Your task to perform on an android device: open app "VLC for Android" (install if not already installed) and enter user name: "Yves@outlook.com" and password: "internally" Image 0: 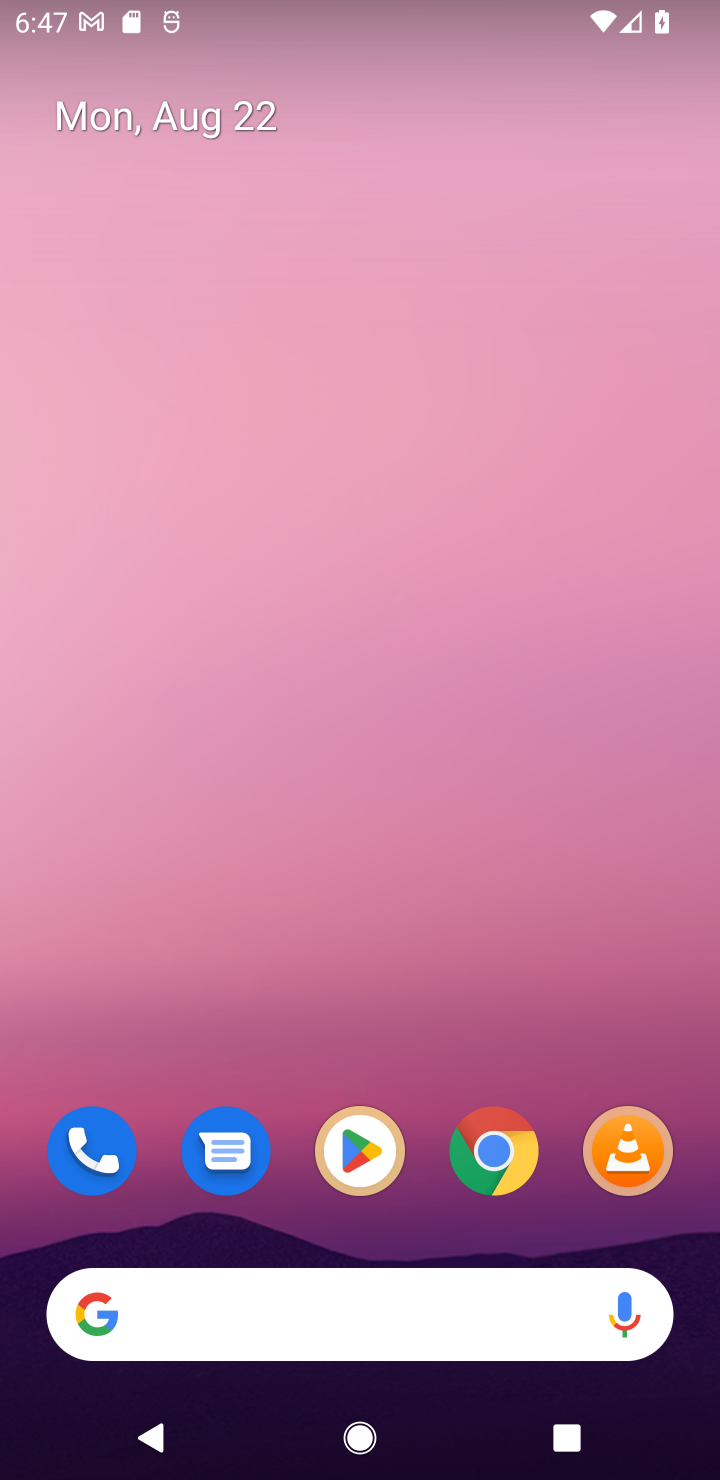
Step 0: press home button
Your task to perform on an android device: open app "VLC for Android" (install if not already installed) and enter user name: "Yves@outlook.com" and password: "internally" Image 1: 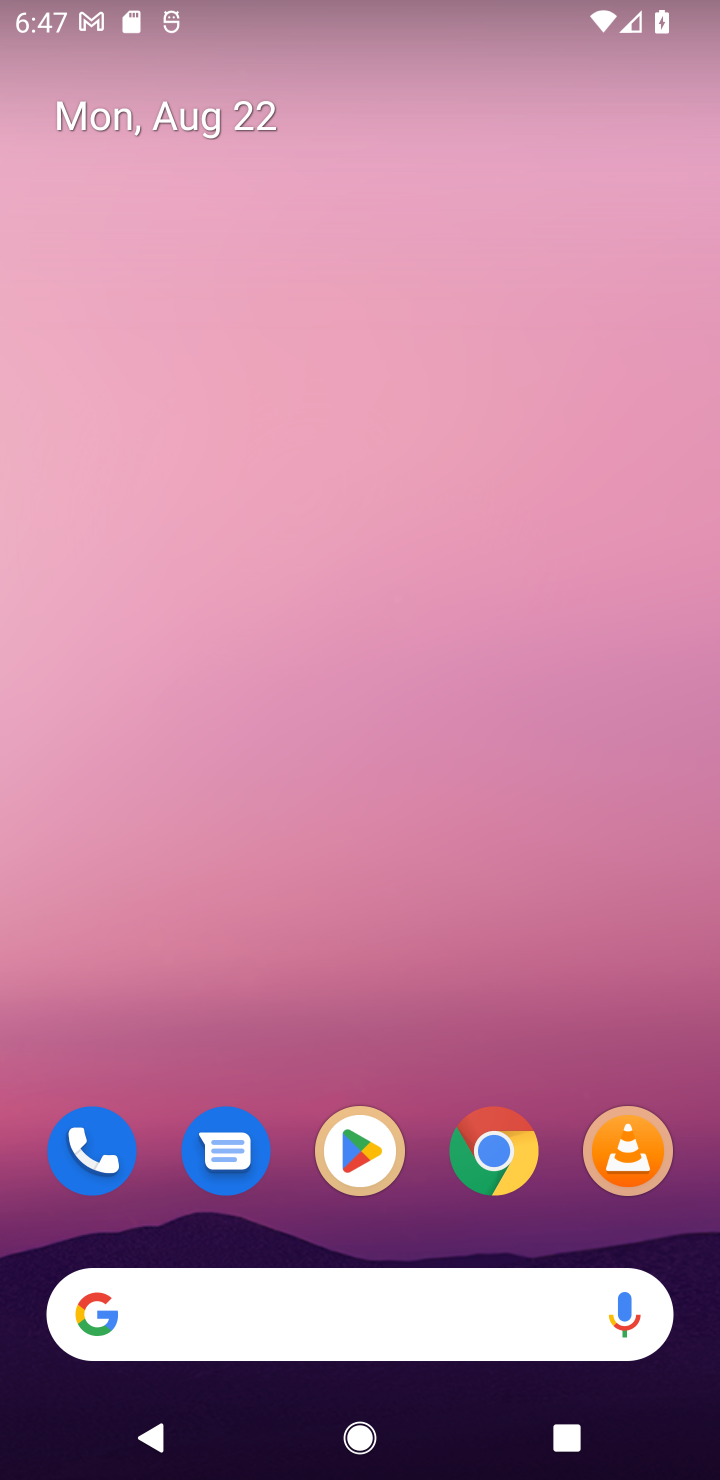
Step 1: click (333, 1153)
Your task to perform on an android device: open app "VLC for Android" (install if not already installed) and enter user name: "Yves@outlook.com" and password: "internally" Image 2: 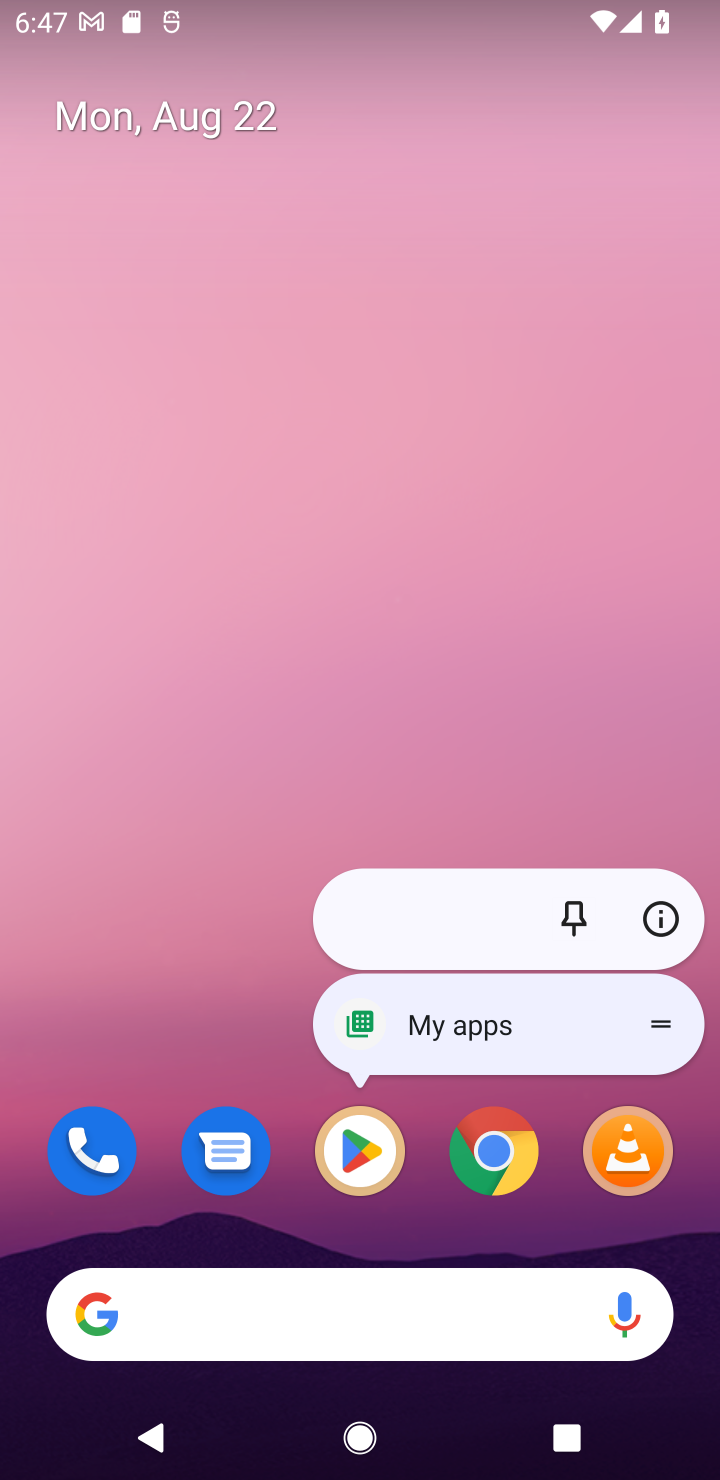
Step 2: click (358, 1154)
Your task to perform on an android device: open app "VLC for Android" (install if not already installed) and enter user name: "Yves@outlook.com" and password: "internally" Image 3: 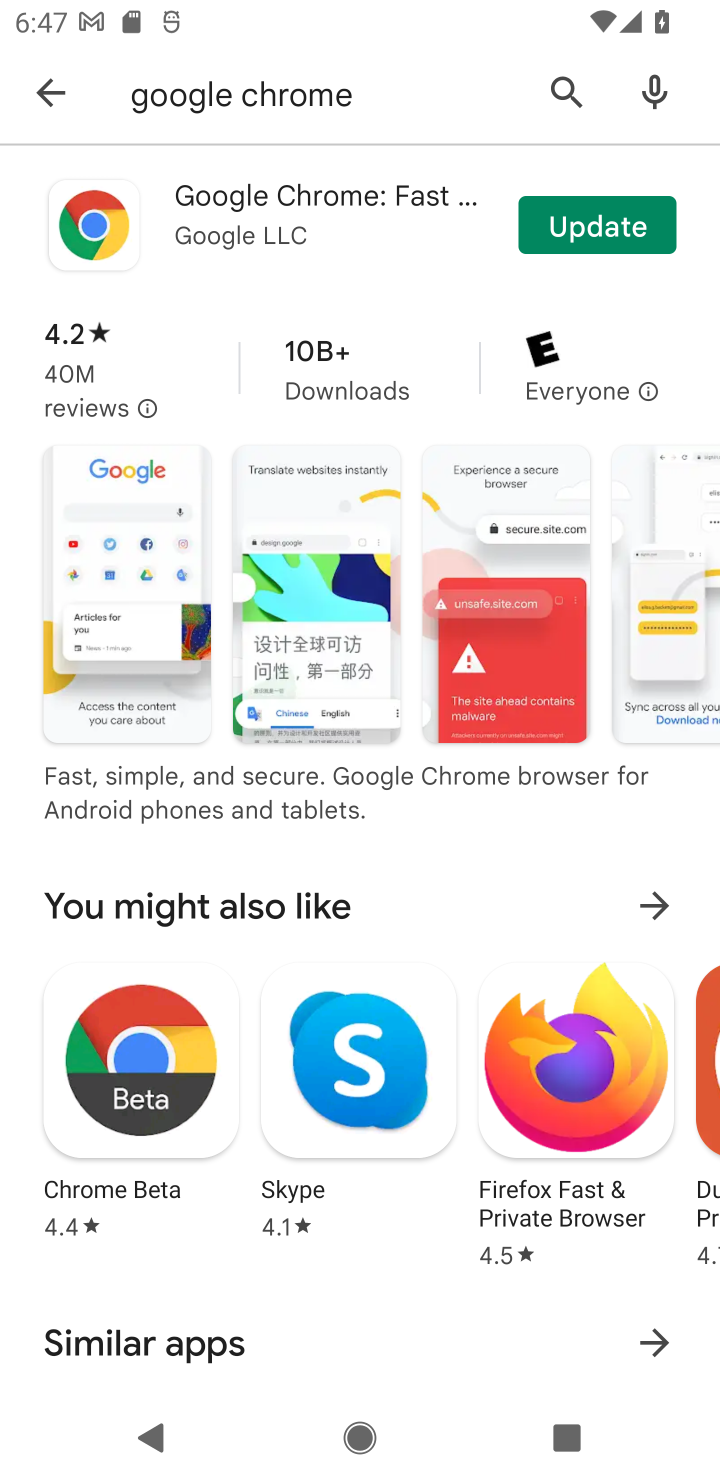
Step 3: click (567, 70)
Your task to perform on an android device: open app "VLC for Android" (install if not already installed) and enter user name: "Yves@outlook.com" and password: "internally" Image 4: 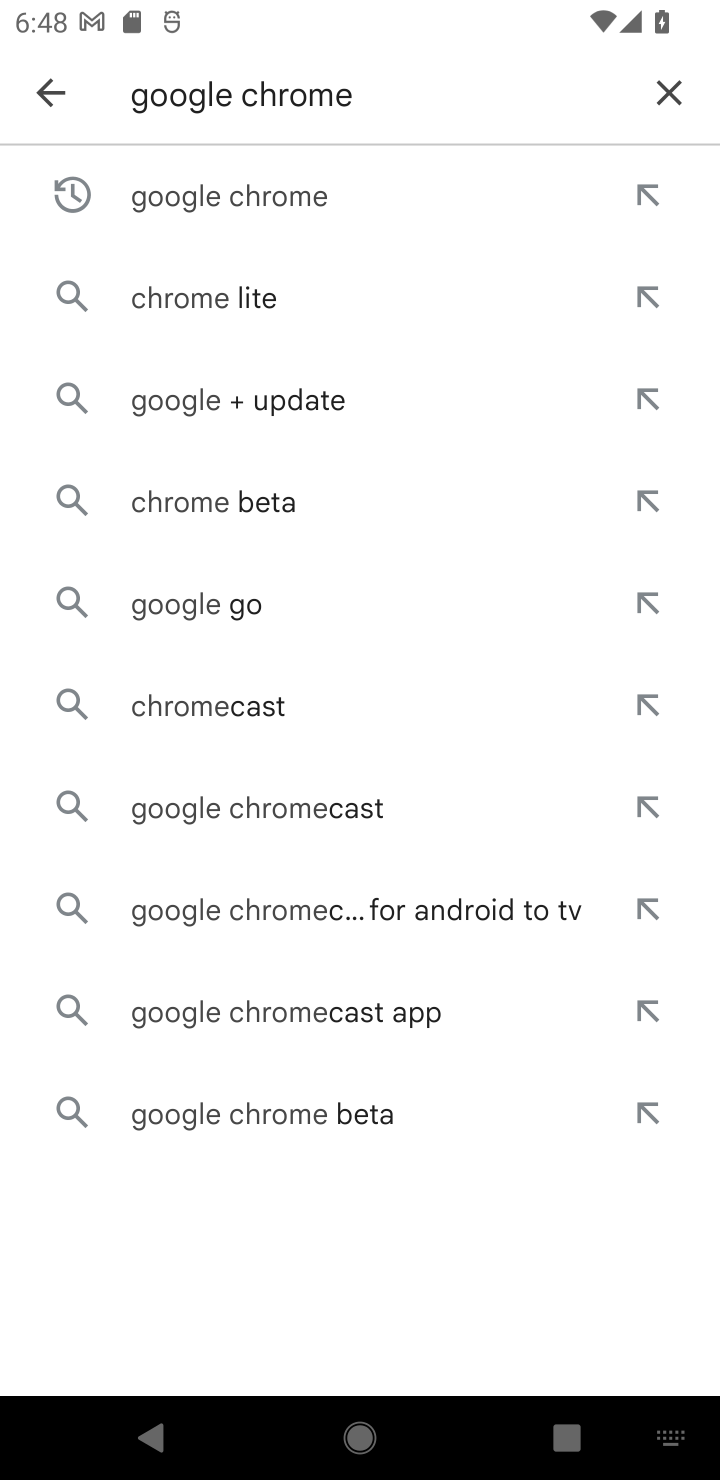
Step 4: click (654, 70)
Your task to perform on an android device: open app "VLC for Android" (install if not already installed) and enter user name: "Yves@outlook.com" and password: "internally" Image 5: 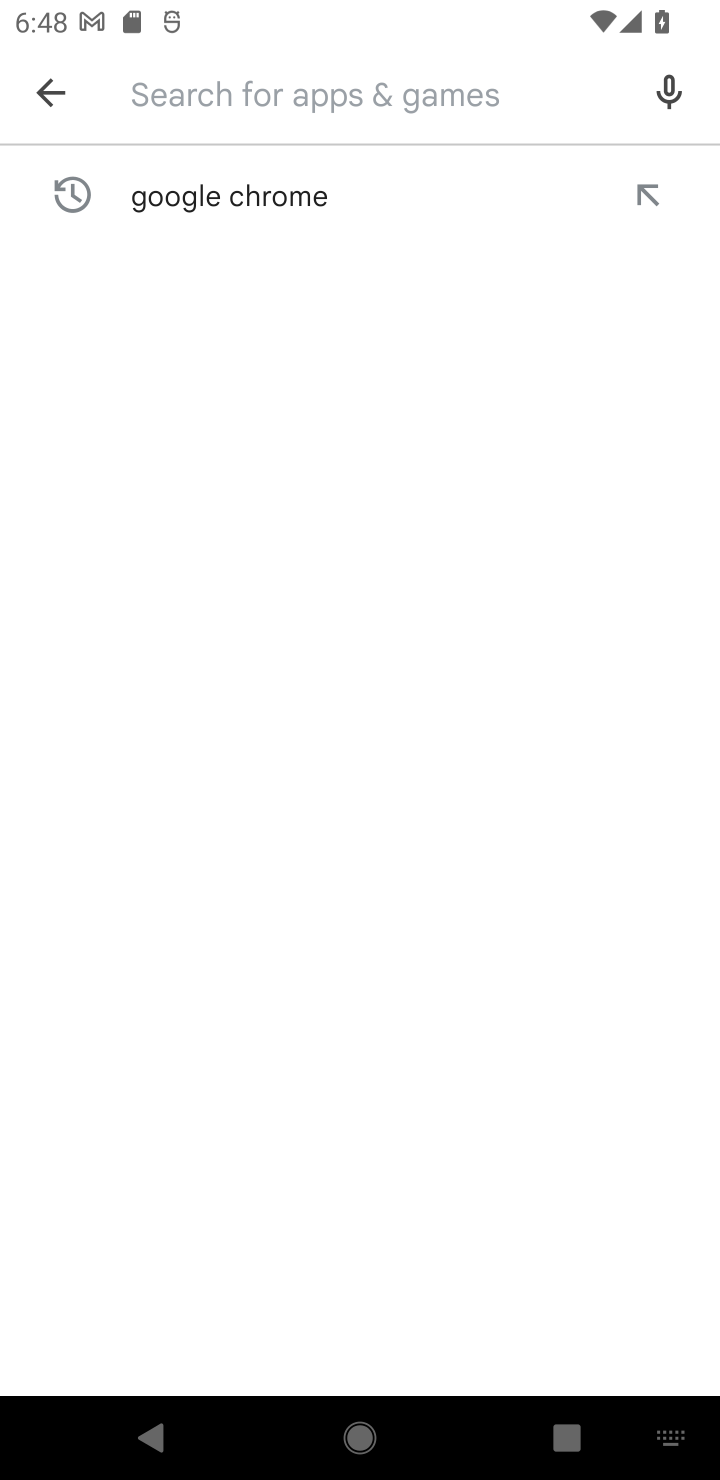
Step 5: type "VLC for Android"
Your task to perform on an android device: open app "VLC for Android" (install if not already installed) and enter user name: "Yves@outlook.com" and password: "internally" Image 6: 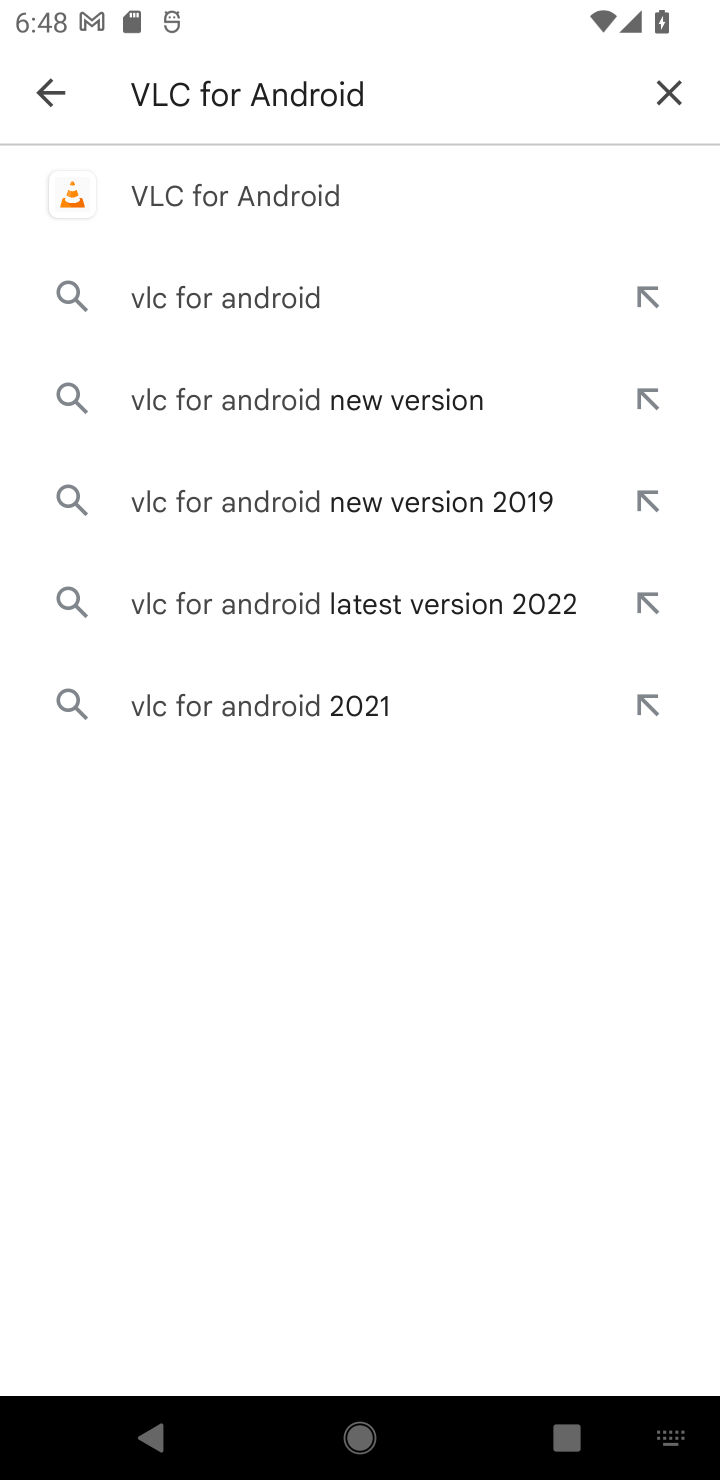
Step 6: click (249, 185)
Your task to perform on an android device: open app "VLC for Android" (install if not already installed) and enter user name: "Yves@outlook.com" and password: "internally" Image 7: 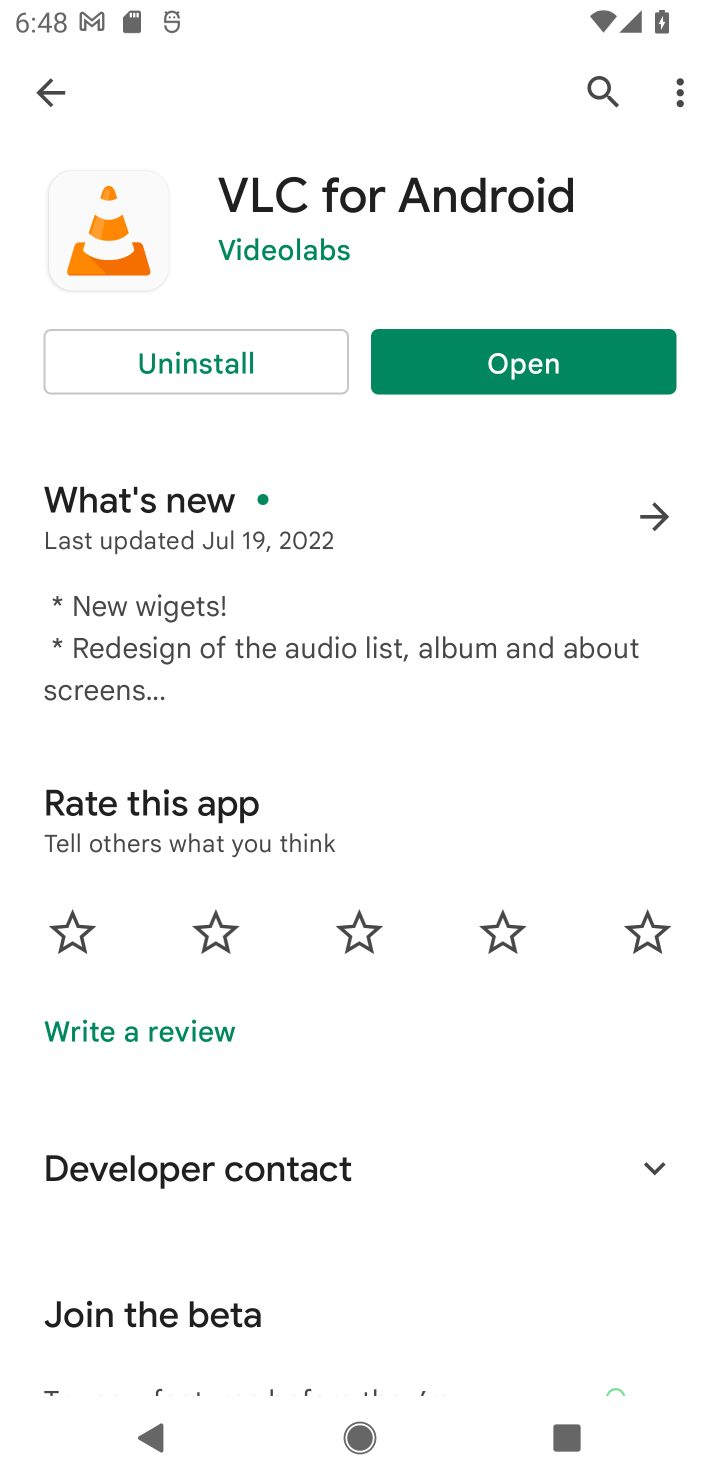
Step 7: click (534, 364)
Your task to perform on an android device: open app "VLC for Android" (install if not already installed) and enter user name: "Yves@outlook.com" and password: "internally" Image 8: 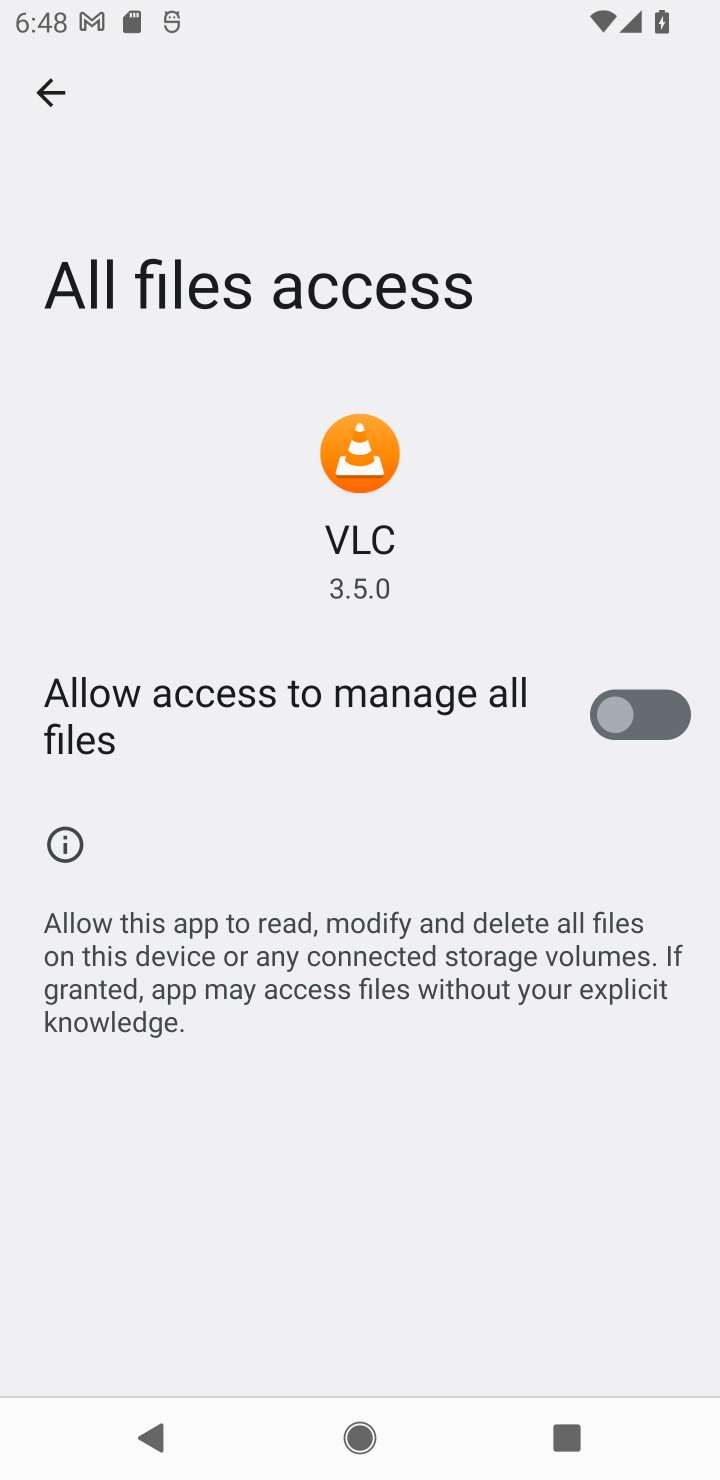
Step 8: task complete